Your task to perform on an android device: open app "Google Play Music" (install if not already installed) Image 0: 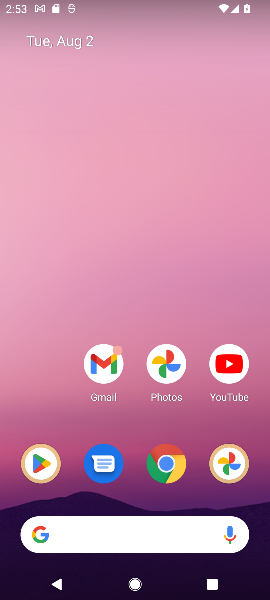
Step 0: click (32, 463)
Your task to perform on an android device: open app "Google Play Music" (install if not already installed) Image 1: 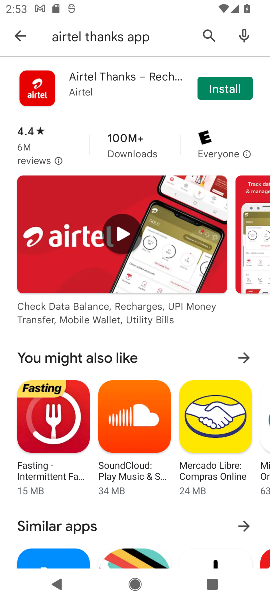
Step 1: click (207, 31)
Your task to perform on an android device: open app "Google Play Music" (install if not already installed) Image 2: 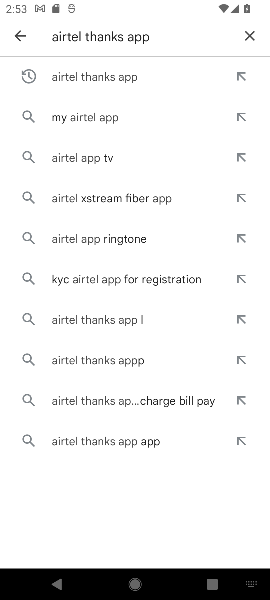
Step 2: click (251, 33)
Your task to perform on an android device: open app "Google Play Music" (install if not already installed) Image 3: 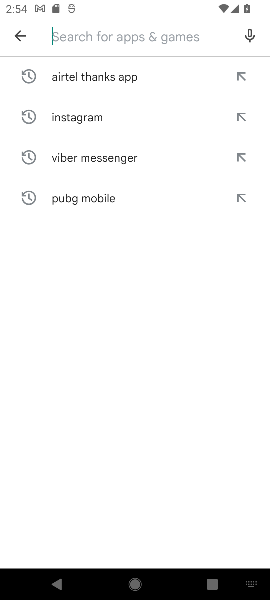
Step 3: type "Google Play Music"
Your task to perform on an android device: open app "Google Play Music" (install if not already installed) Image 4: 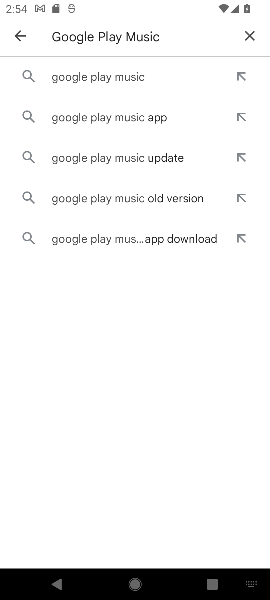
Step 4: click (129, 72)
Your task to perform on an android device: open app "Google Play Music" (install if not already installed) Image 5: 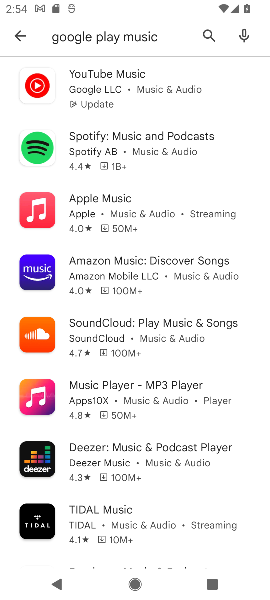
Step 5: task complete